Your task to perform on an android device: Empty the shopping cart on costco. Search for "macbook pro" on costco, select the first entry, and add it to the cart. Image 0: 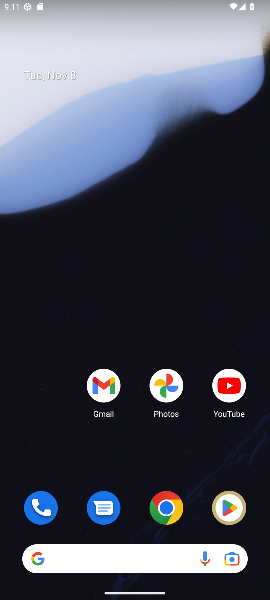
Step 0: click (168, 520)
Your task to perform on an android device: Empty the shopping cart on costco. Search for "macbook pro" on costco, select the first entry, and add it to the cart. Image 1: 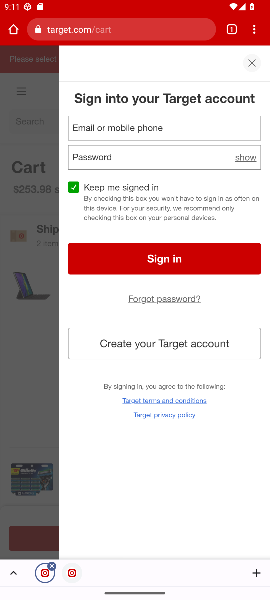
Step 1: click (106, 34)
Your task to perform on an android device: Empty the shopping cart on costco. Search for "macbook pro" on costco, select the first entry, and add it to the cart. Image 2: 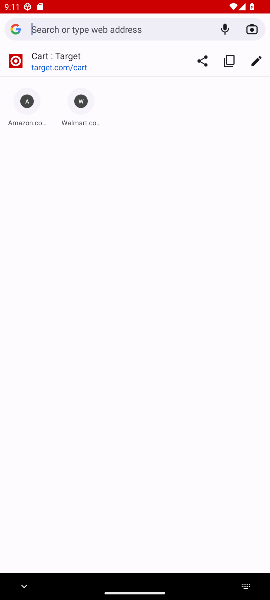
Step 2: type "costco"
Your task to perform on an android device: Empty the shopping cart on costco. Search for "macbook pro" on costco, select the first entry, and add it to the cart. Image 3: 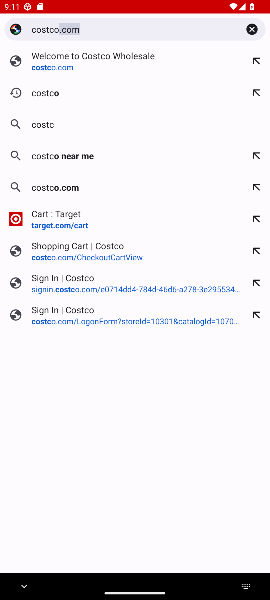
Step 3: type ""
Your task to perform on an android device: Empty the shopping cart on costco. Search for "macbook pro" on costco, select the first entry, and add it to the cart. Image 4: 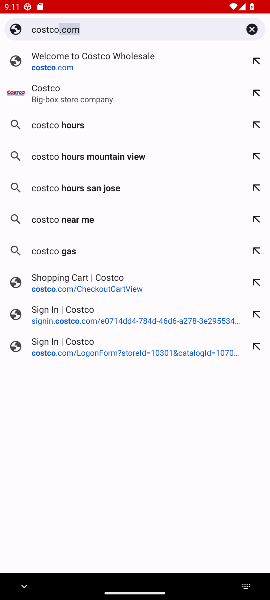
Step 4: click (35, 91)
Your task to perform on an android device: Empty the shopping cart on costco. Search for "macbook pro" on costco, select the first entry, and add it to the cart. Image 5: 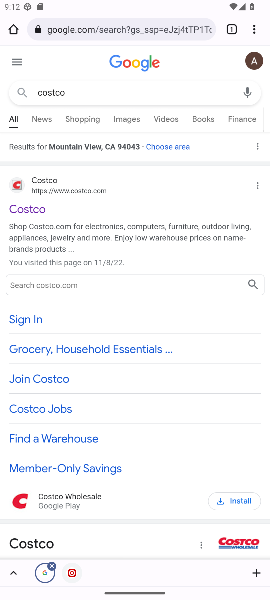
Step 5: click (32, 210)
Your task to perform on an android device: Empty the shopping cart on costco. Search for "macbook pro" on costco, select the first entry, and add it to the cart. Image 6: 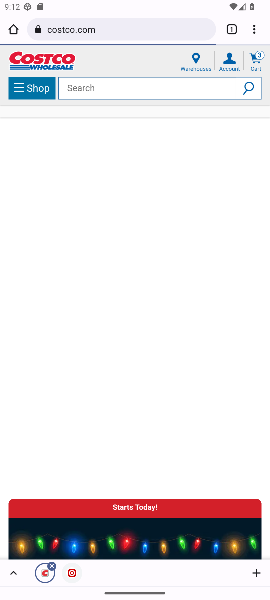
Step 6: click (137, 86)
Your task to perform on an android device: Empty the shopping cart on costco. Search for "macbook pro" on costco, select the first entry, and add it to the cart. Image 7: 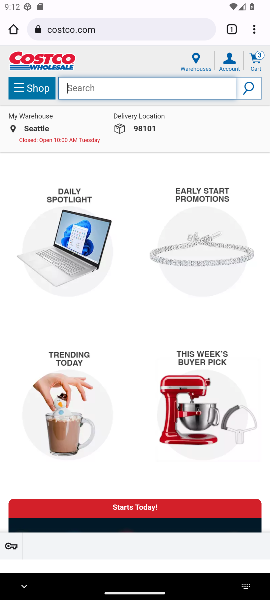
Step 7: type "macbook pro "
Your task to perform on an android device: Empty the shopping cart on costco. Search for "macbook pro" on costco, select the first entry, and add it to the cart. Image 8: 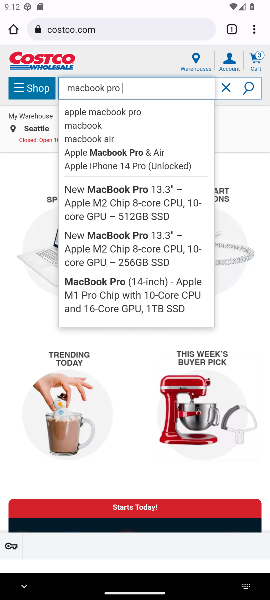
Step 8: click (128, 197)
Your task to perform on an android device: Empty the shopping cart on costco. Search for "macbook pro" on costco, select the first entry, and add it to the cart. Image 9: 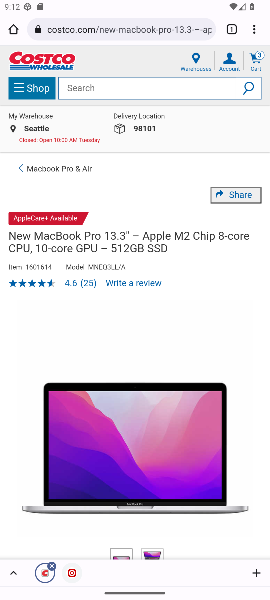
Step 9: drag from (83, 464) to (138, 98)
Your task to perform on an android device: Empty the shopping cart on costco. Search for "macbook pro" on costco, select the first entry, and add it to the cart. Image 10: 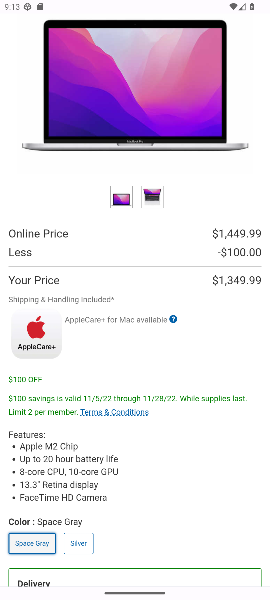
Step 10: drag from (84, 486) to (104, 341)
Your task to perform on an android device: Empty the shopping cart on costco. Search for "macbook pro" on costco, select the first entry, and add it to the cart. Image 11: 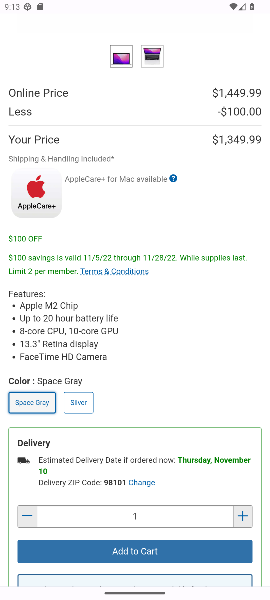
Step 11: click (132, 550)
Your task to perform on an android device: Empty the shopping cart on costco. Search for "macbook pro" on costco, select the first entry, and add it to the cart. Image 12: 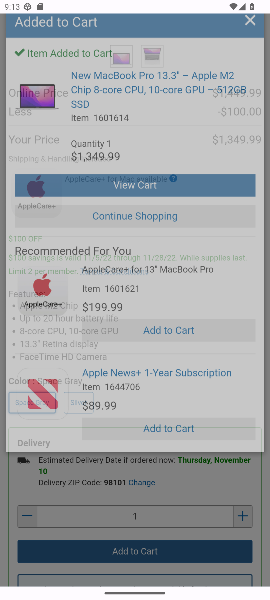
Step 12: click (123, 187)
Your task to perform on an android device: Empty the shopping cart on costco. Search for "macbook pro" on costco, select the first entry, and add it to the cart. Image 13: 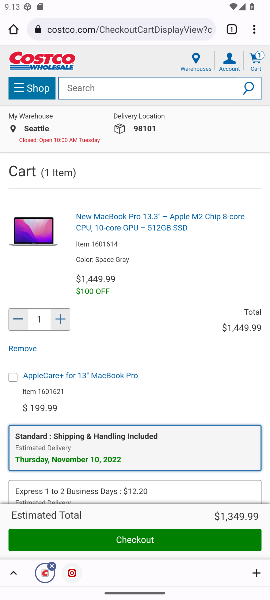
Step 13: click (134, 540)
Your task to perform on an android device: Empty the shopping cart on costco. Search for "macbook pro" on costco, select the first entry, and add it to the cart. Image 14: 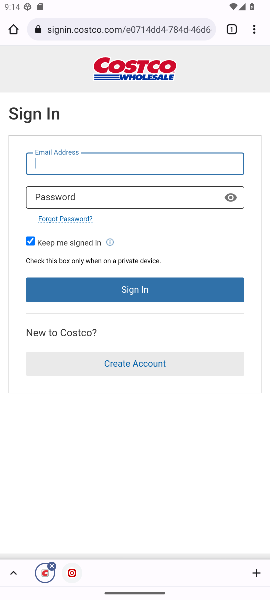
Step 14: task complete